Your task to perform on an android device: open app "Walmart Shopping & Grocery" (install if not already installed) Image 0: 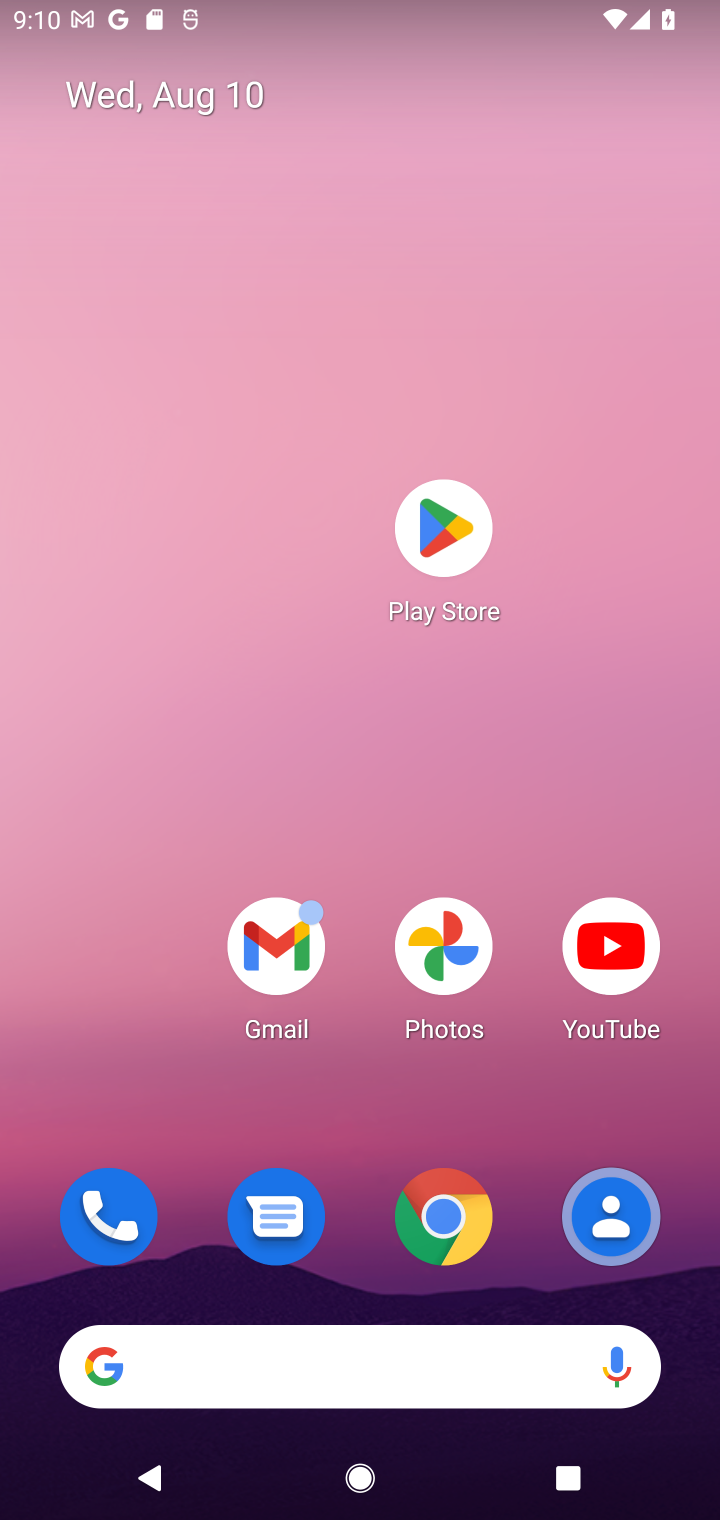
Step 0: click (439, 542)
Your task to perform on an android device: open app "Walmart Shopping & Grocery" (install if not already installed) Image 1: 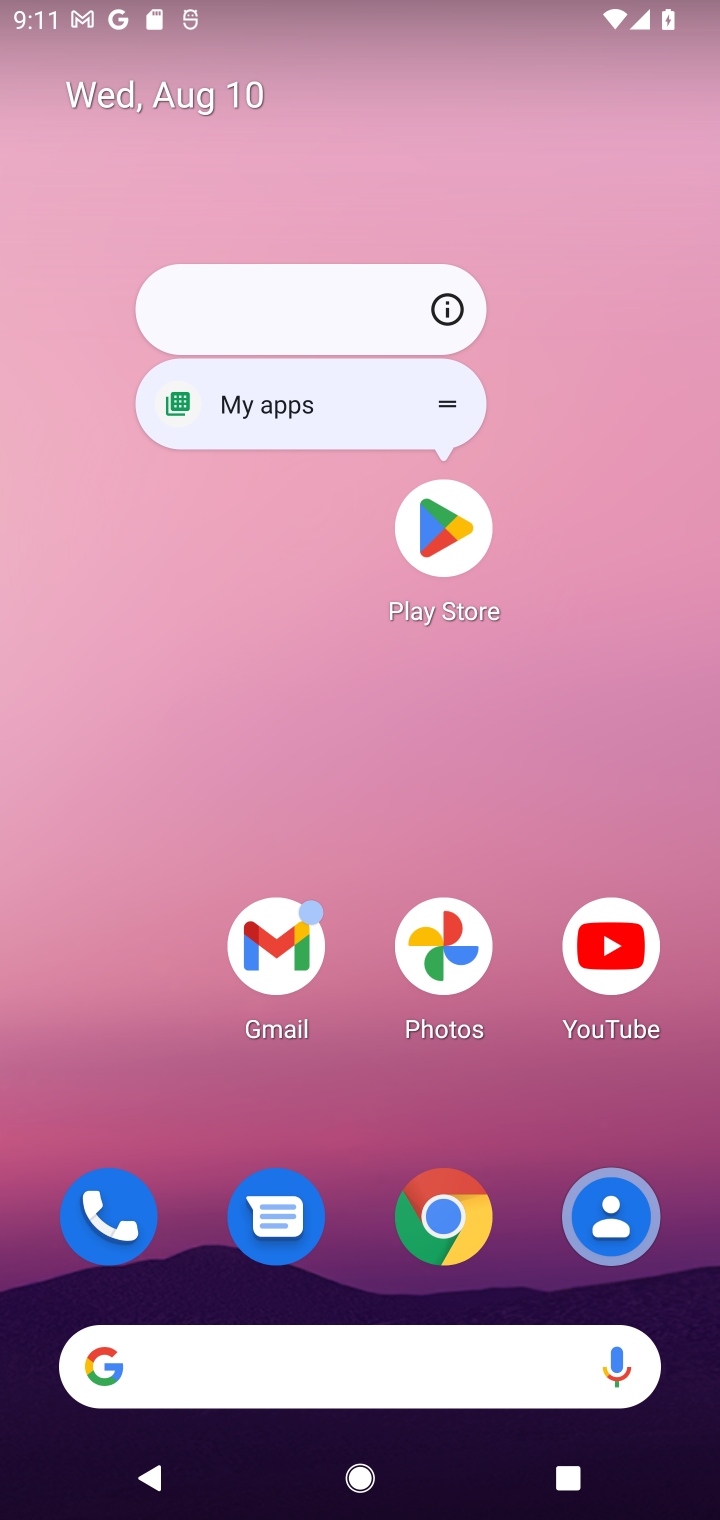
Step 1: click (439, 543)
Your task to perform on an android device: open app "Walmart Shopping & Grocery" (install if not already installed) Image 2: 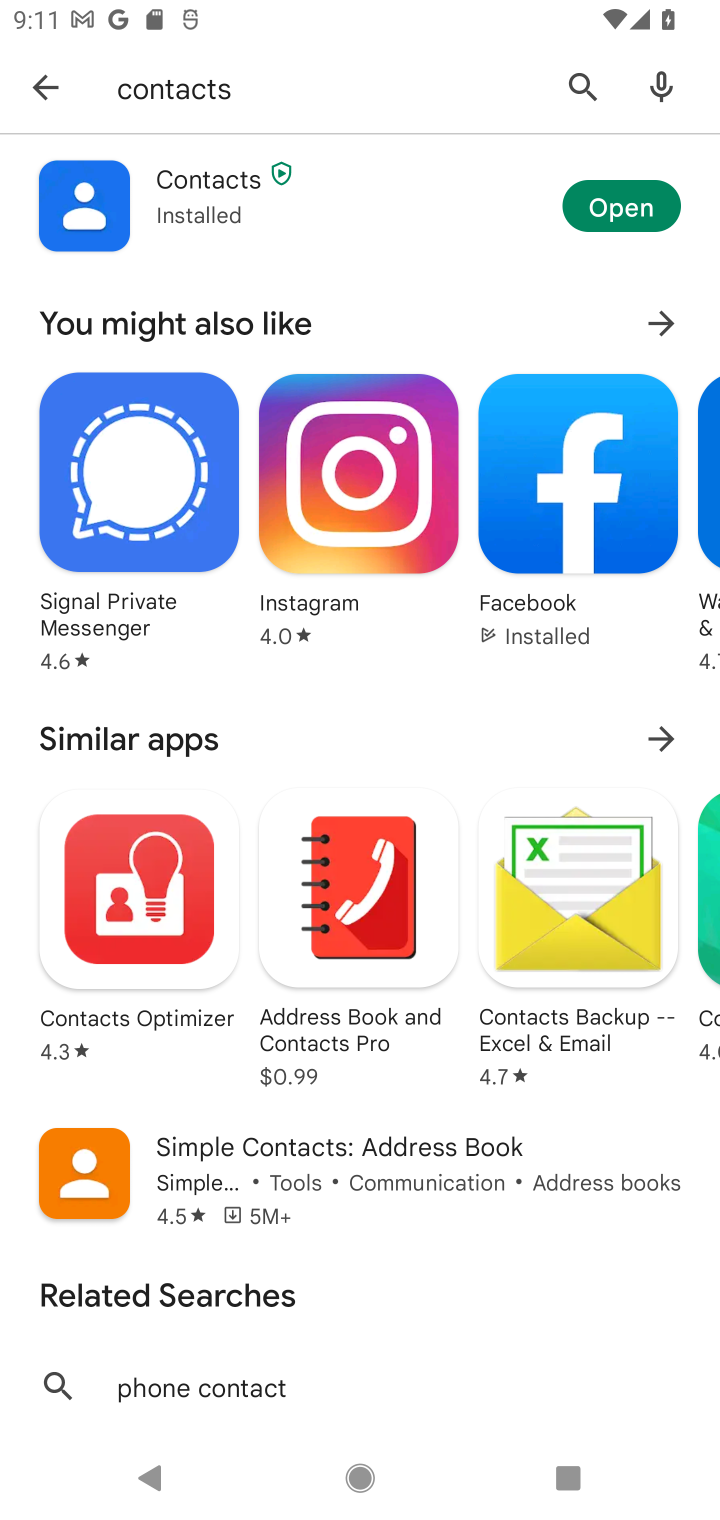
Step 2: click (584, 75)
Your task to perform on an android device: open app "Walmart Shopping & Grocery" (install if not already installed) Image 3: 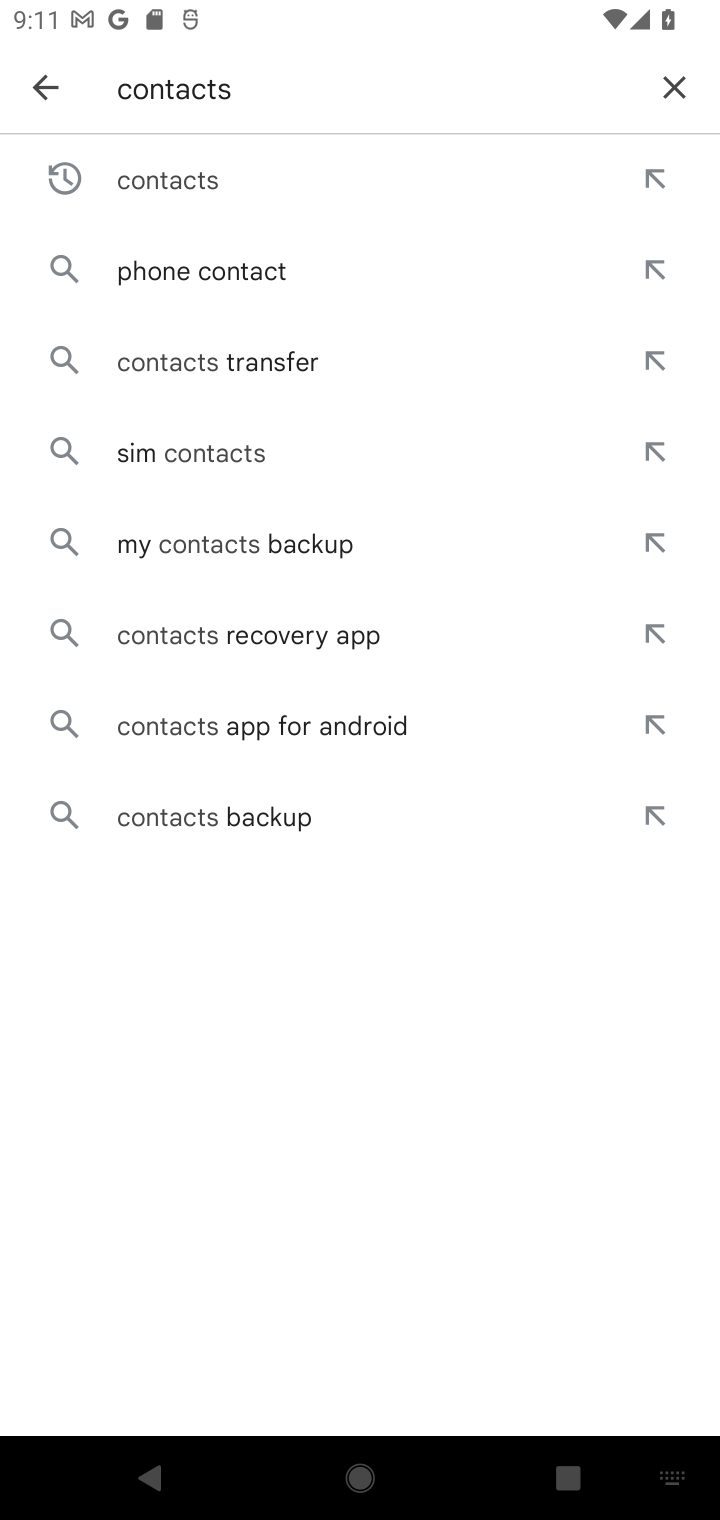
Step 3: click (670, 78)
Your task to perform on an android device: open app "Walmart Shopping & Grocery" (install if not already installed) Image 4: 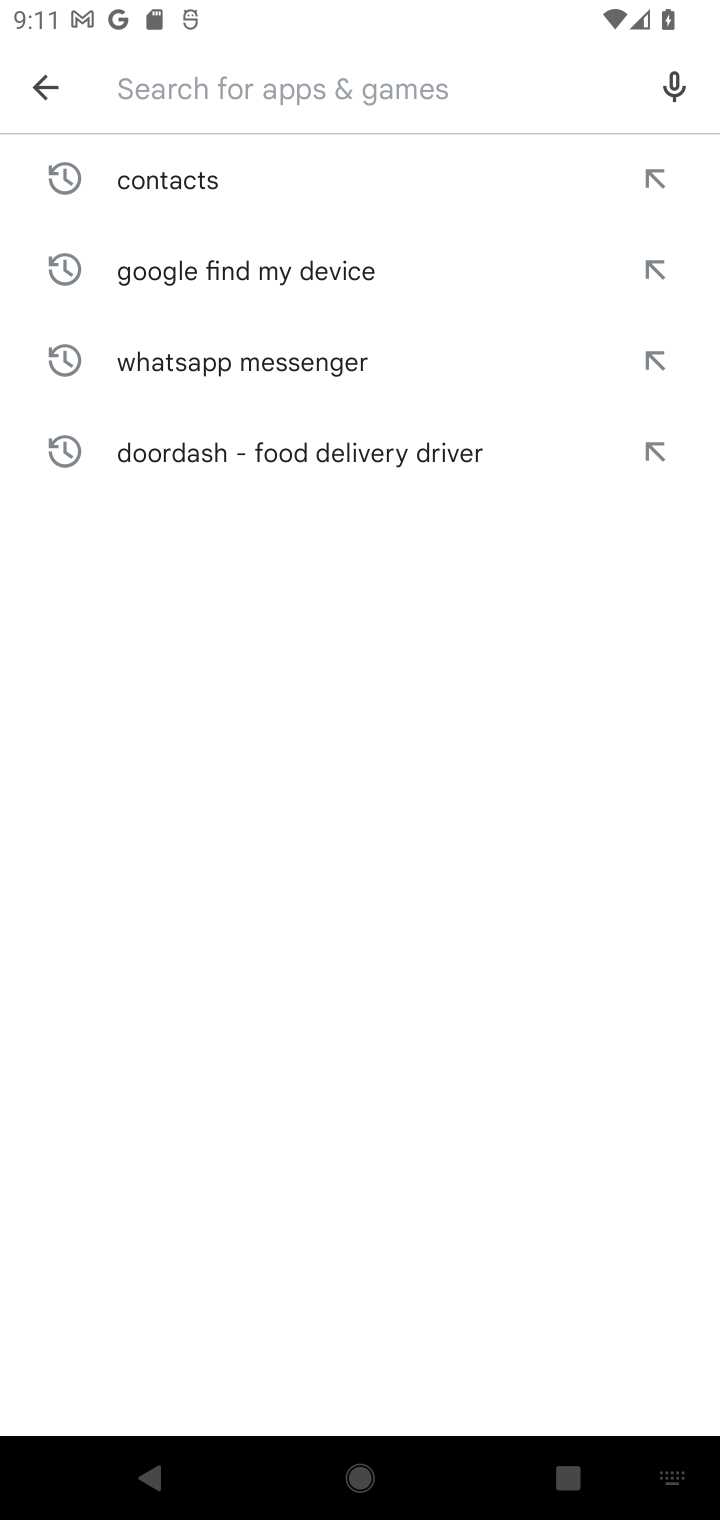
Step 4: type "Walmart Shopping & Grocery"
Your task to perform on an android device: open app "Walmart Shopping & Grocery" (install if not already installed) Image 5: 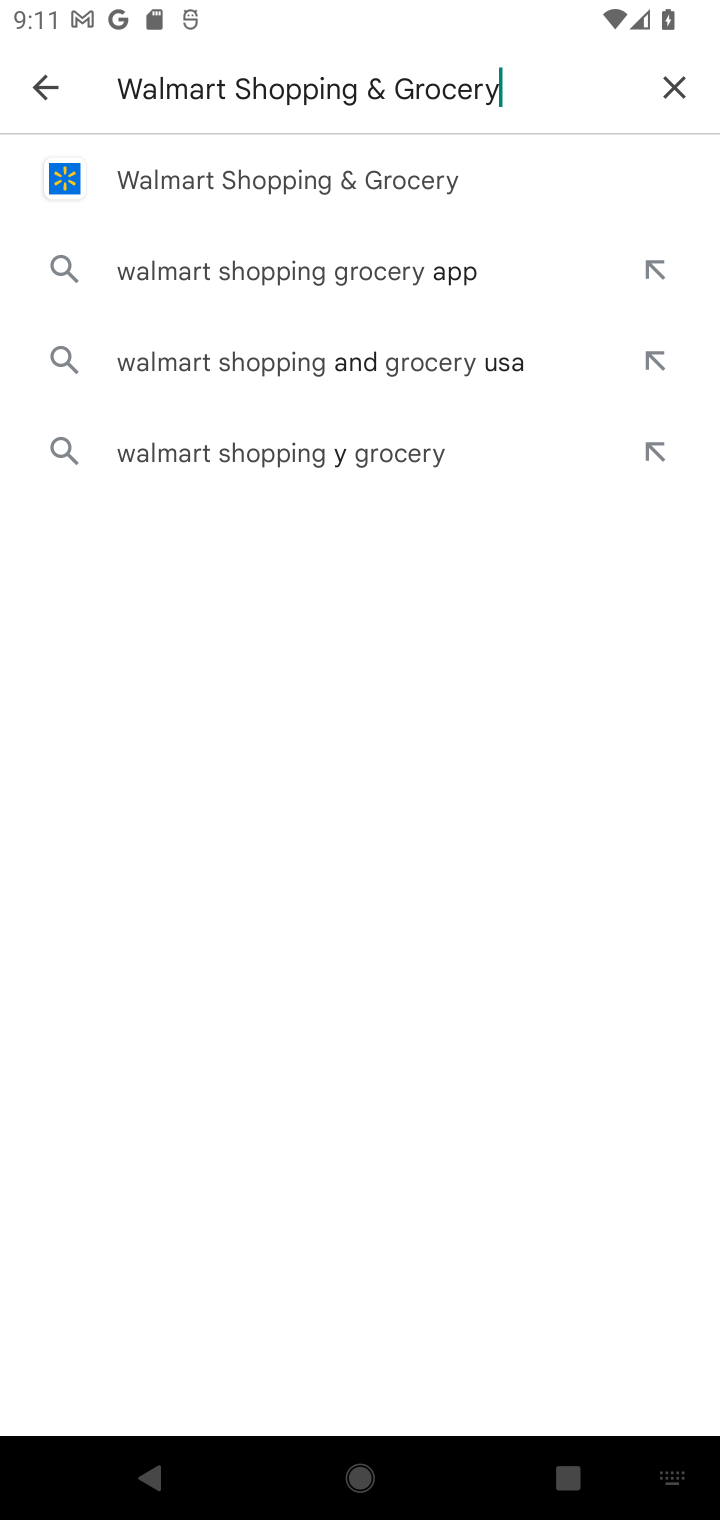
Step 5: click (260, 179)
Your task to perform on an android device: open app "Walmart Shopping & Grocery" (install if not already installed) Image 6: 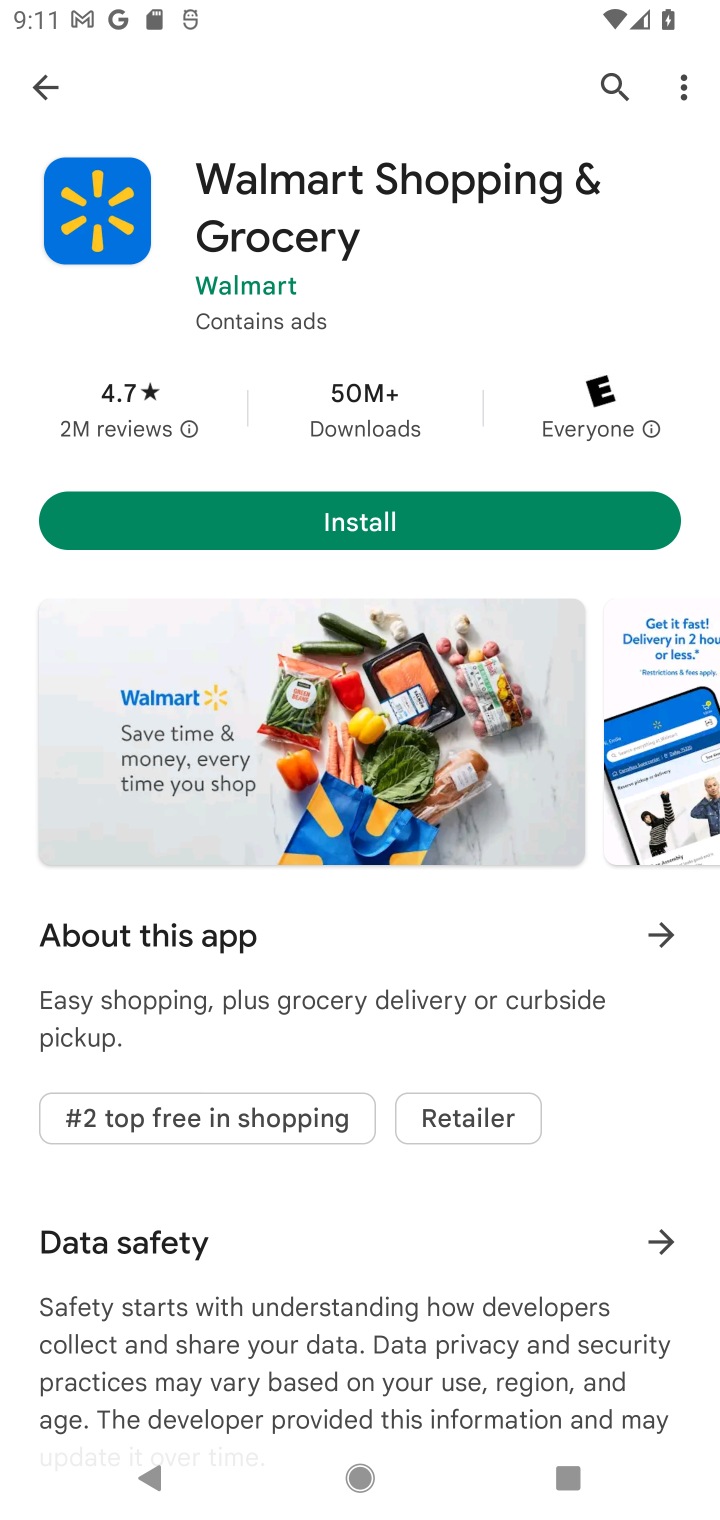
Step 6: click (363, 526)
Your task to perform on an android device: open app "Walmart Shopping & Grocery" (install if not already installed) Image 7: 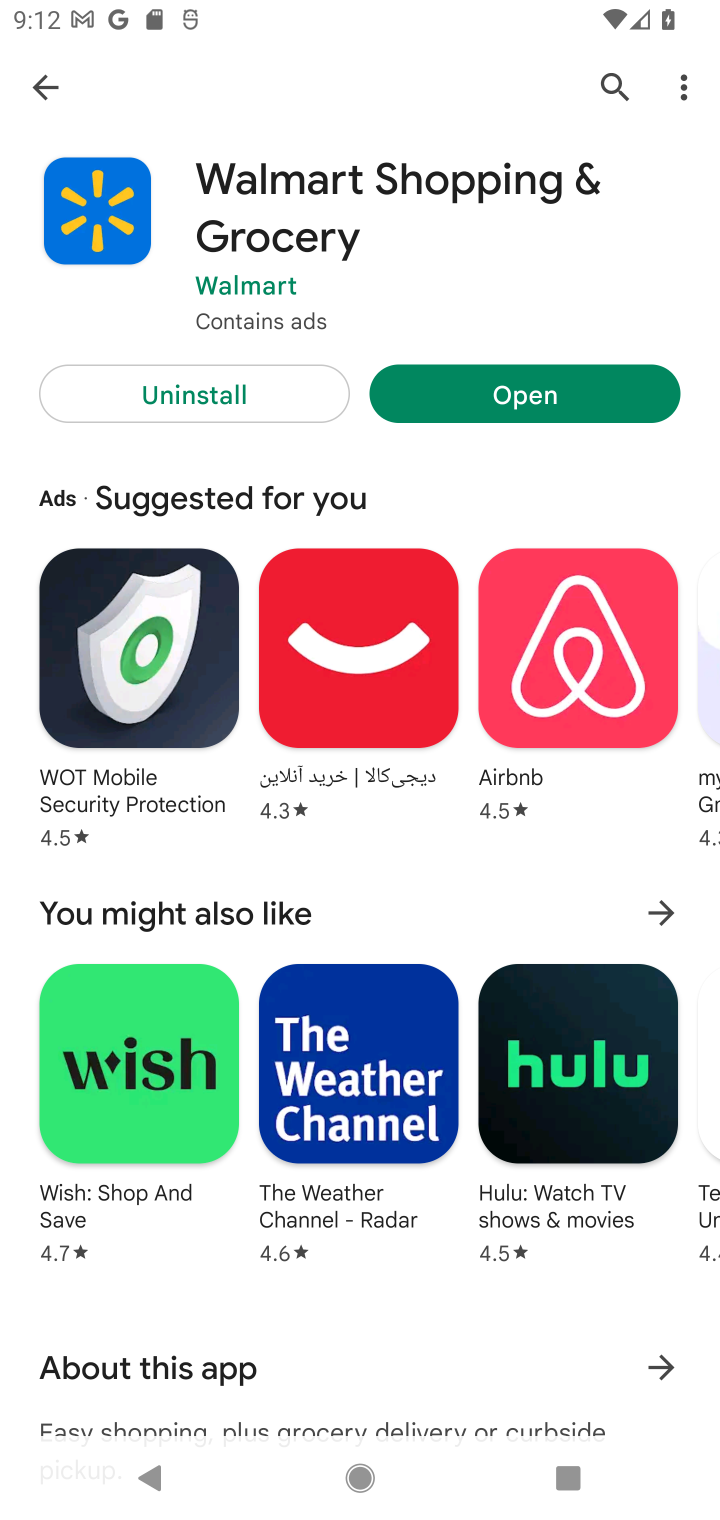
Step 7: click (562, 392)
Your task to perform on an android device: open app "Walmart Shopping & Grocery" (install if not already installed) Image 8: 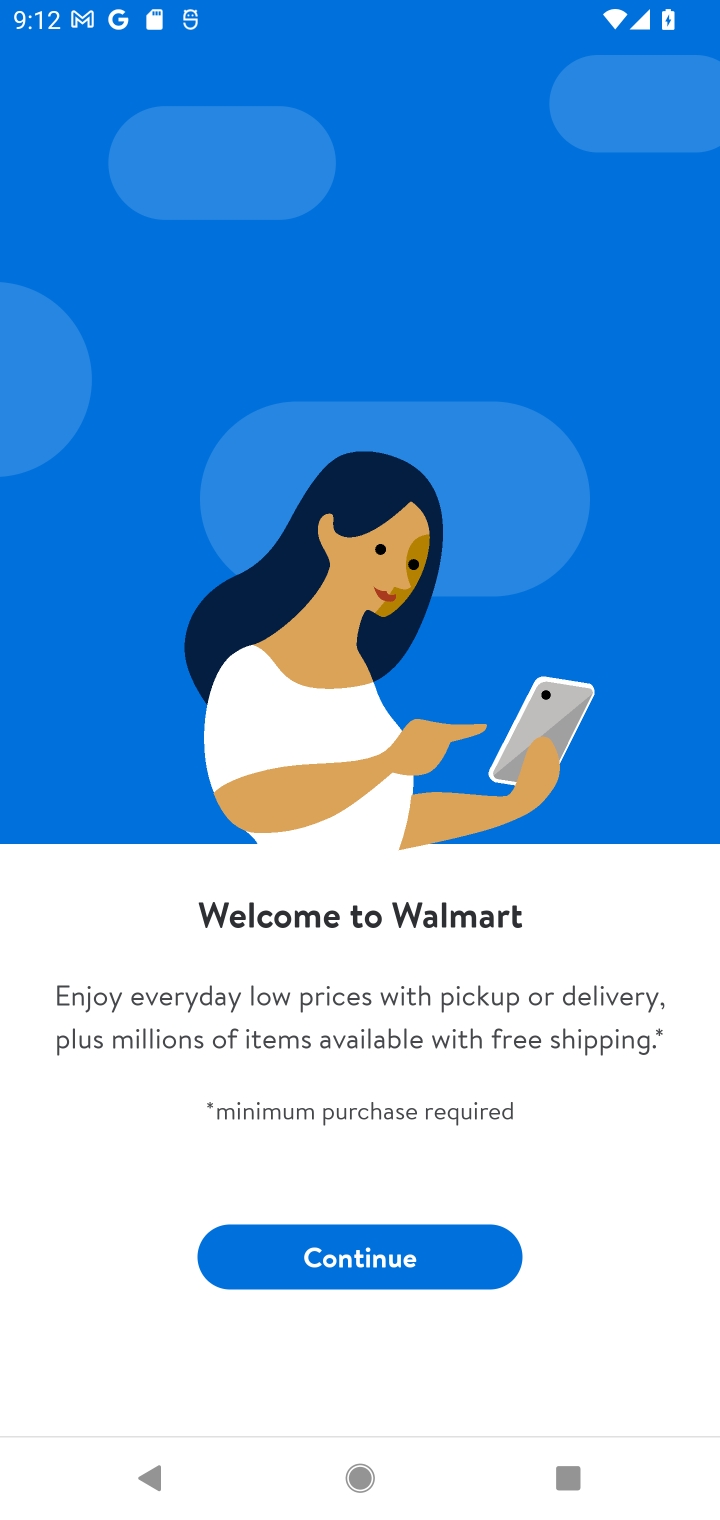
Step 8: task complete